Your task to perform on an android device: Empty the shopping cart on target.com. Search for "macbook air" on target.com, select the first entry, add it to the cart, then select checkout. Image 0: 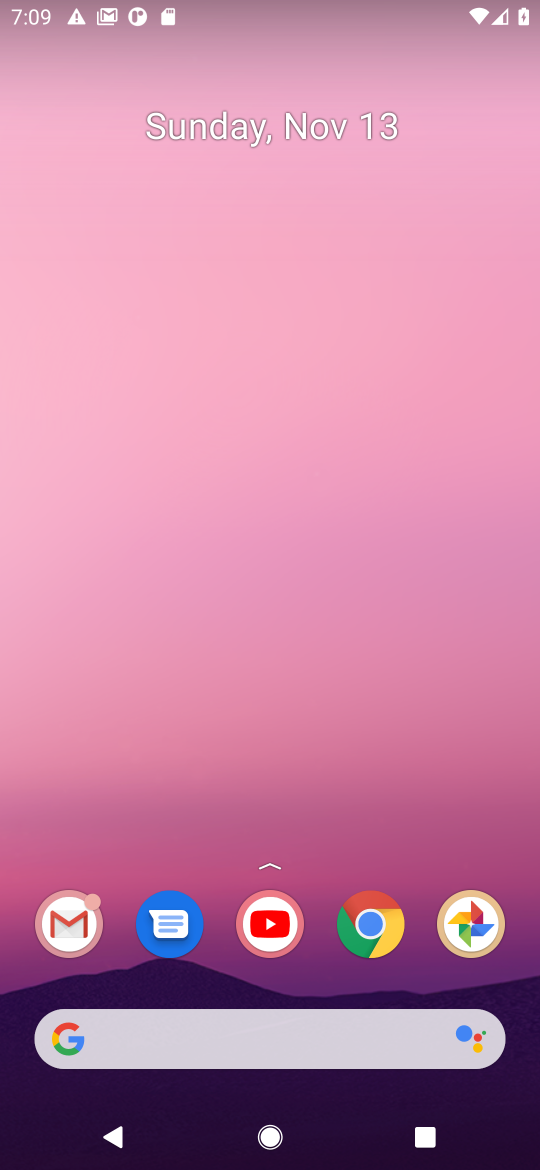
Step 0: click (372, 926)
Your task to perform on an android device: Empty the shopping cart on target.com. Search for "macbook air" on target.com, select the first entry, add it to the cart, then select checkout. Image 1: 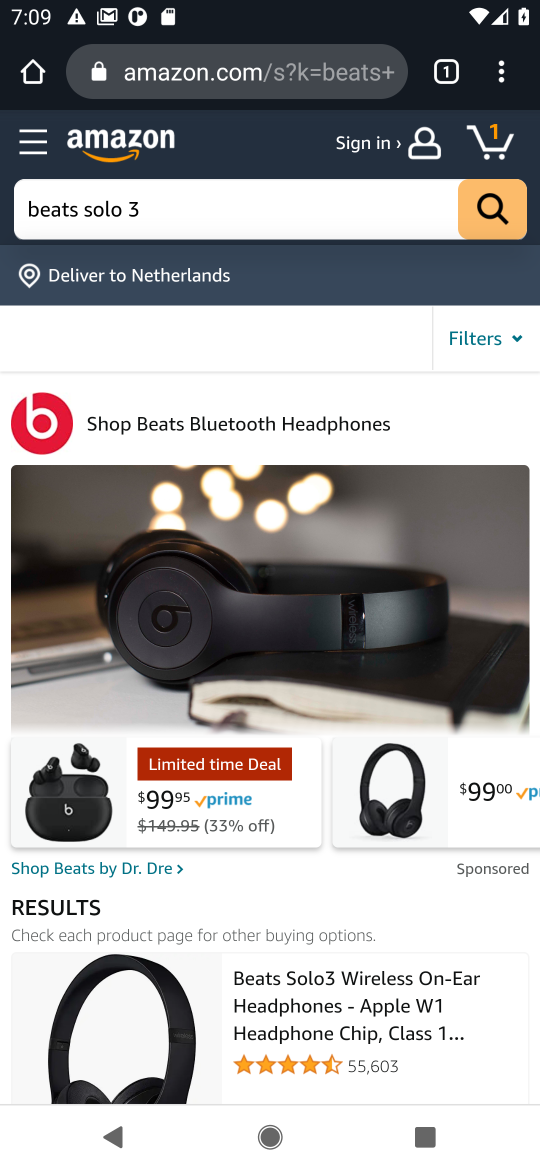
Step 1: click (201, 84)
Your task to perform on an android device: Empty the shopping cart on target.com. Search for "macbook air" on target.com, select the first entry, add it to the cart, then select checkout. Image 2: 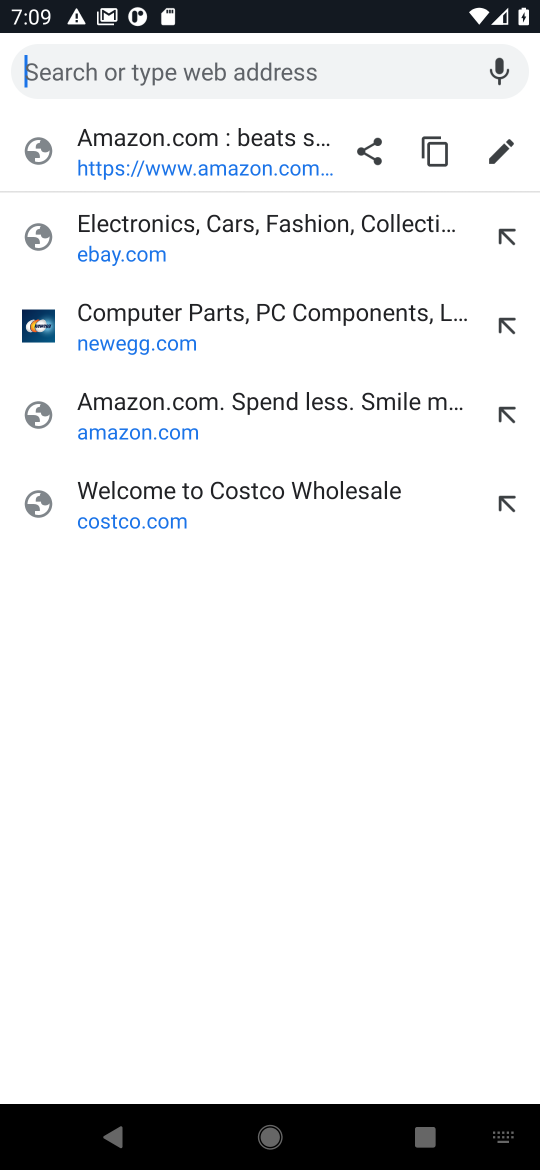
Step 2: type "target.com"
Your task to perform on an android device: Empty the shopping cart on target.com. Search for "macbook air" on target.com, select the first entry, add it to the cart, then select checkout. Image 3: 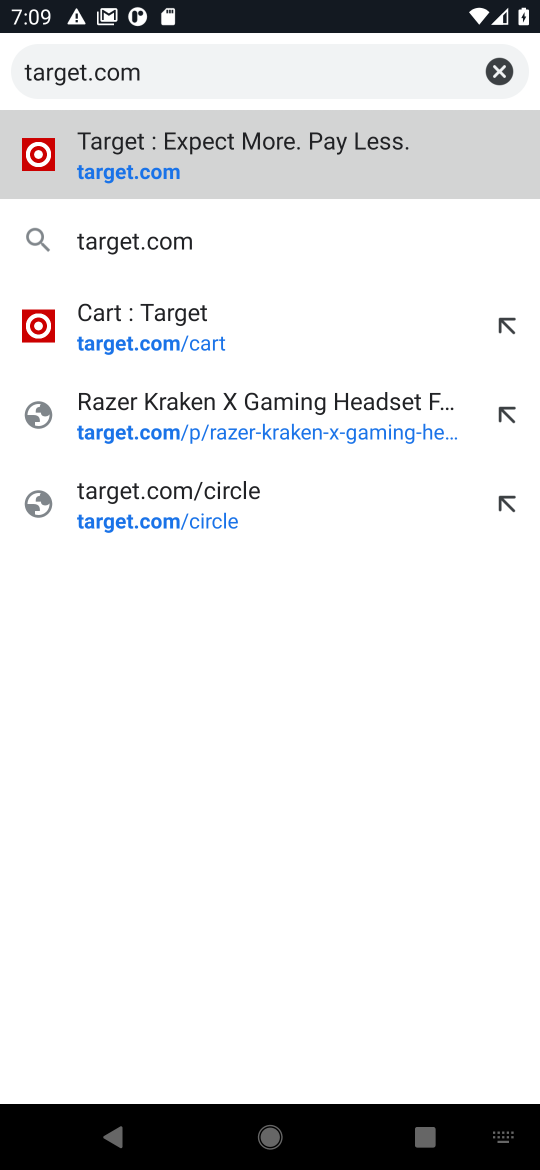
Step 3: click (151, 188)
Your task to perform on an android device: Empty the shopping cart on target.com. Search for "macbook air" on target.com, select the first entry, add it to the cart, then select checkout. Image 4: 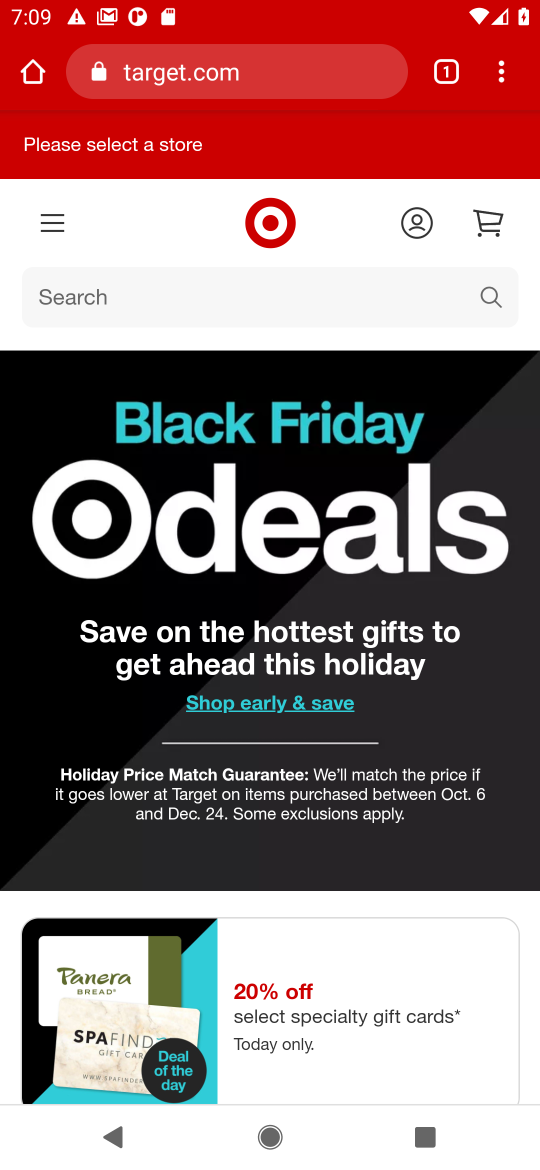
Step 4: click (495, 224)
Your task to perform on an android device: Empty the shopping cart on target.com. Search for "macbook air" on target.com, select the first entry, add it to the cart, then select checkout. Image 5: 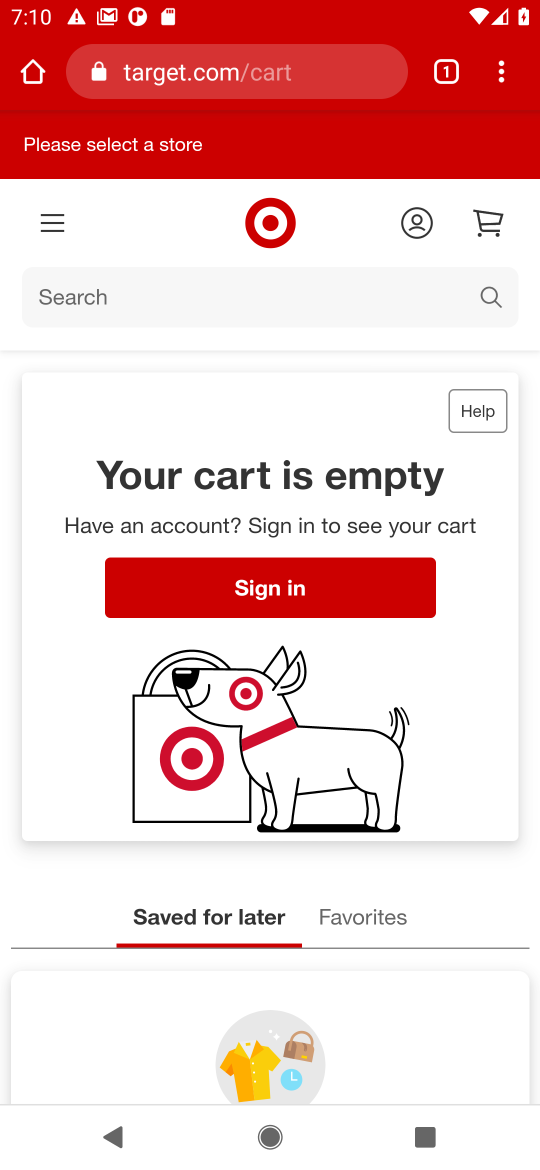
Step 5: click (484, 294)
Your task to perform on an android device: Empty the shopping cart on target.com. Search for "macbook air" on target.com, select the first entry, add it to the cart, then select checkout. Image 6: 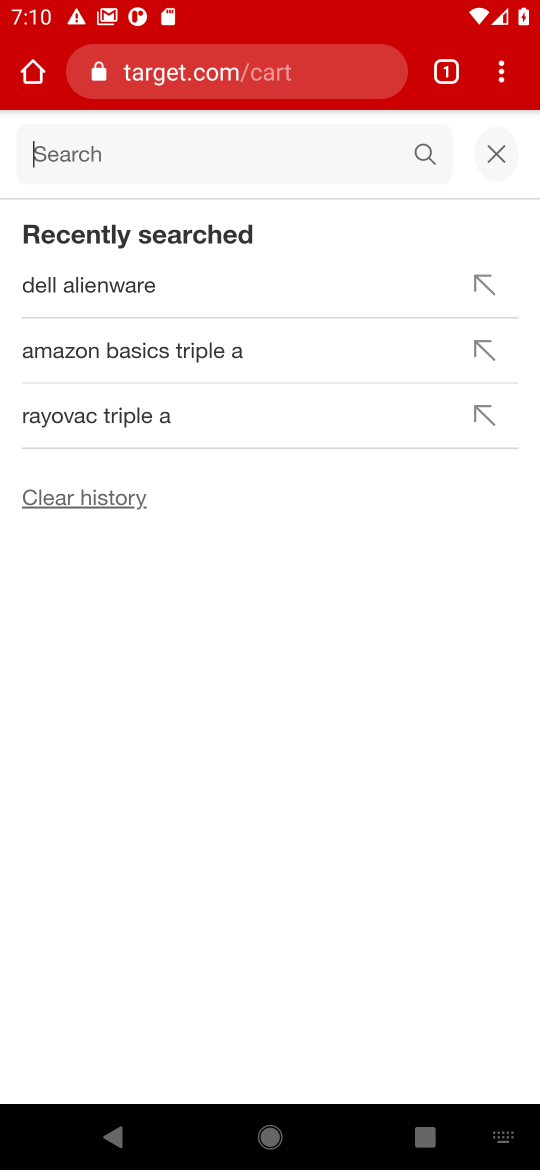
Step 6: type "macbook air"
Your task to perform on an android device: Empty the shopping cart on target.com. Search for "macbook air" on target.com, select the first entry, add it to the cart, then select checkout. Image 7: 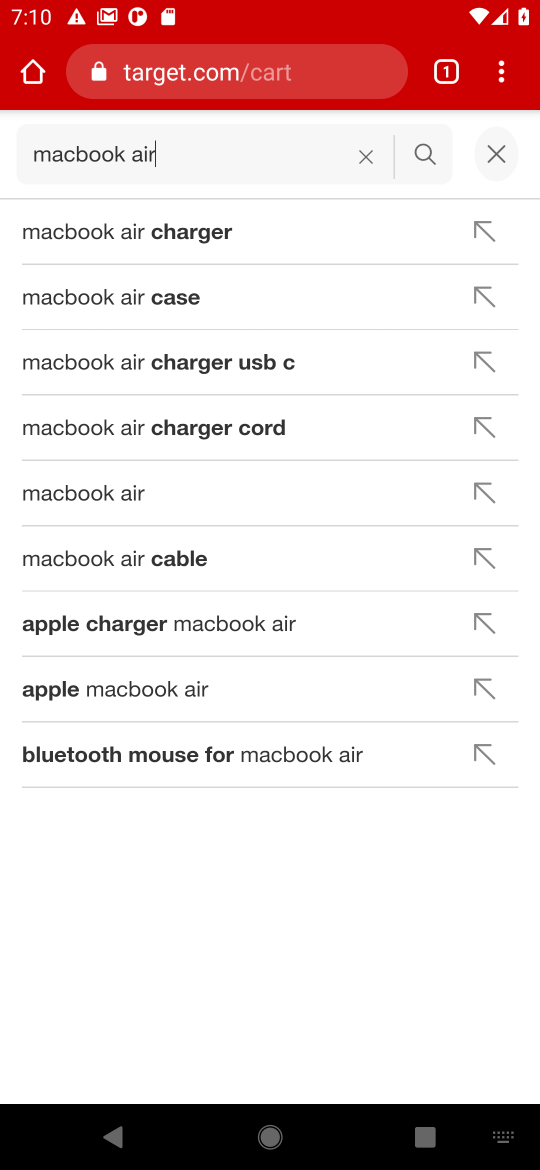
Step 7: click (52, 503)
Your task to perform on an android device: Empty the shopping cart on target.com. Search for "macbook air" on target.com, select the first entry, add it to the cart, then select checkout. Image 8: 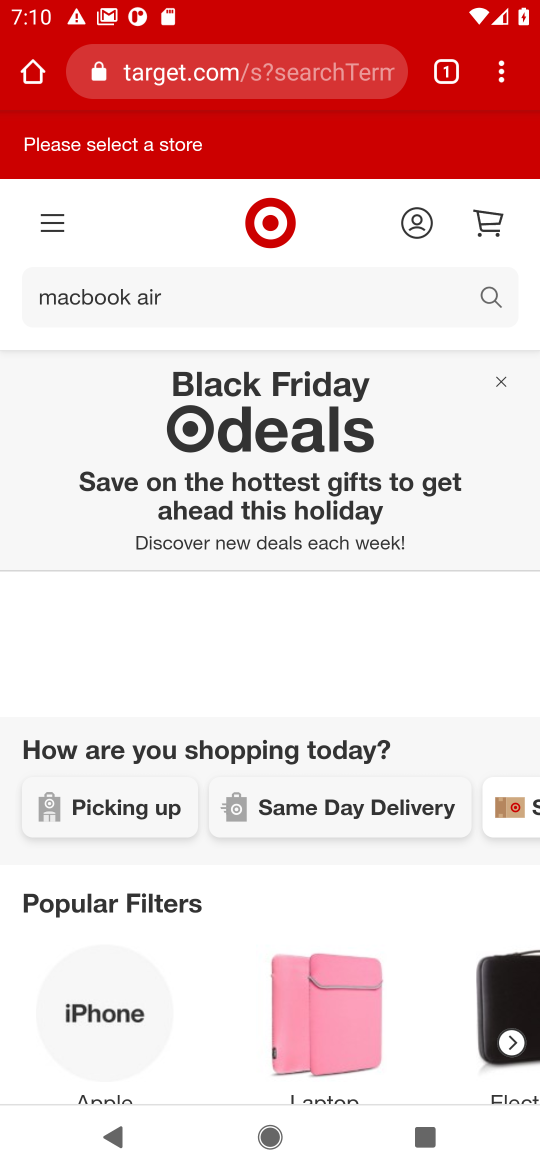
Step 8: drag from (323, 734) to (348, 298)
Your task to perform on an android device: Empty the shopping cart on target.com. Search for "macbook air" on target.com, select the first entry, add it to the cart, then select checkout. Image 9: 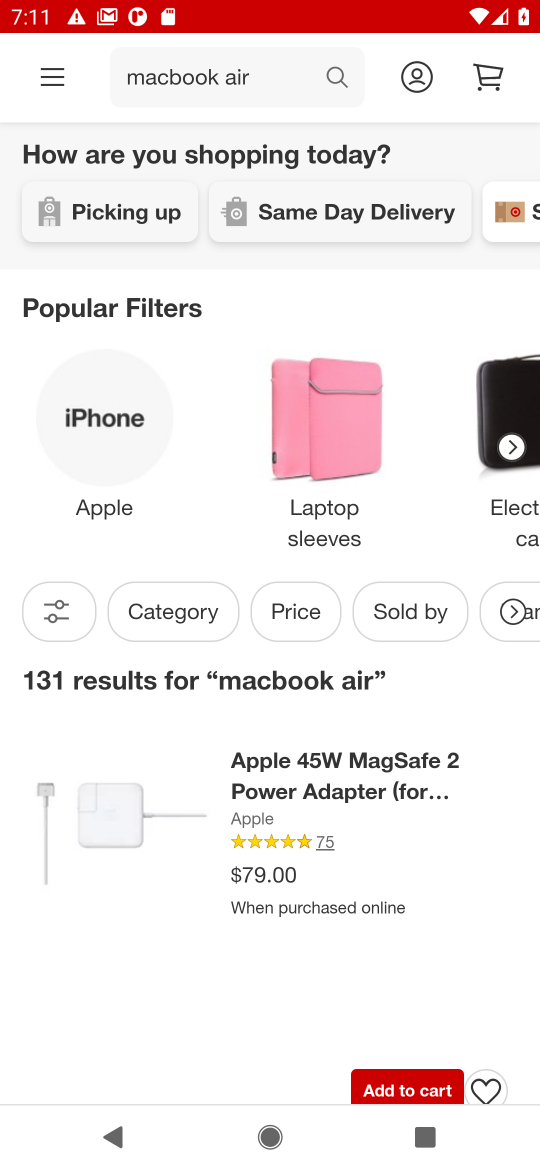
Step 9: drag from (173, 850) to (214, 530)
Your task to perform on an android device: Empty the shopping cart on target.com. Search for "macbook air" on target.com, select the first entry, add it to the cart, then select checkout. Image 10: 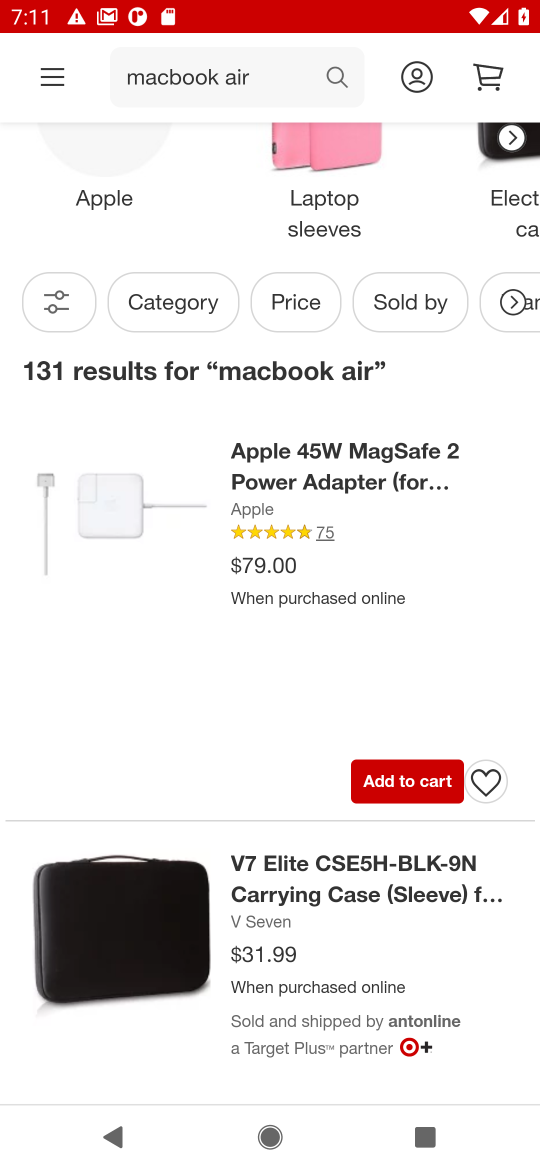
Step 10: click (120, 567)
Your task to perform on an android device: Empty the shopping cart on target.com. Search for "macbook air" on target.com, select the first entry, add it to the cart, then select checkout. Image 11: 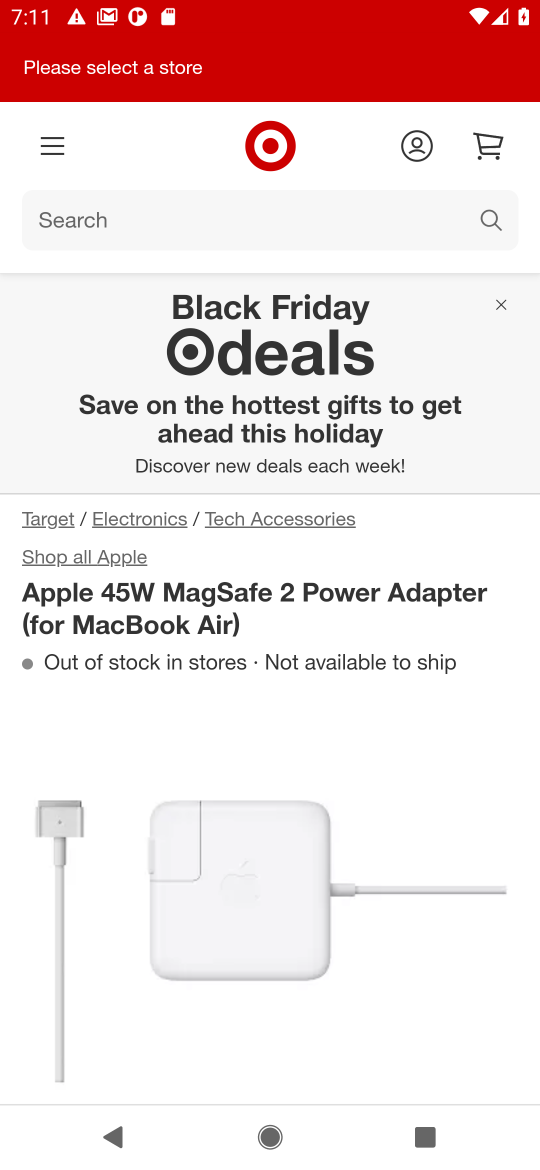
Step 11: drag from (162, 687) to (188, 365)
Your task to perform on an android device: Empty the shopping cart on target.com. Search for "macbook air" on target.com, select the first entry, add it to the cart, then select checkout. Image 12: 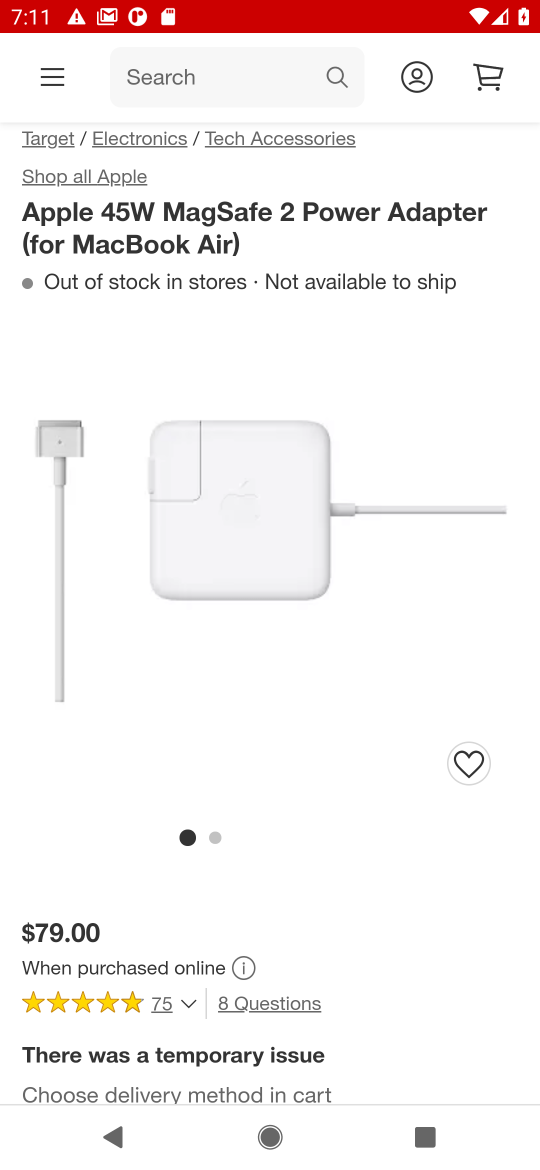
Step 12: drag from (204, 663) to (198, 391)
Your task to perform on an android device: Empty the shopping cart on target.com. Search for "macbook air" on target.com, select the first entry, add it to the cart, then select checkout. Image 13: 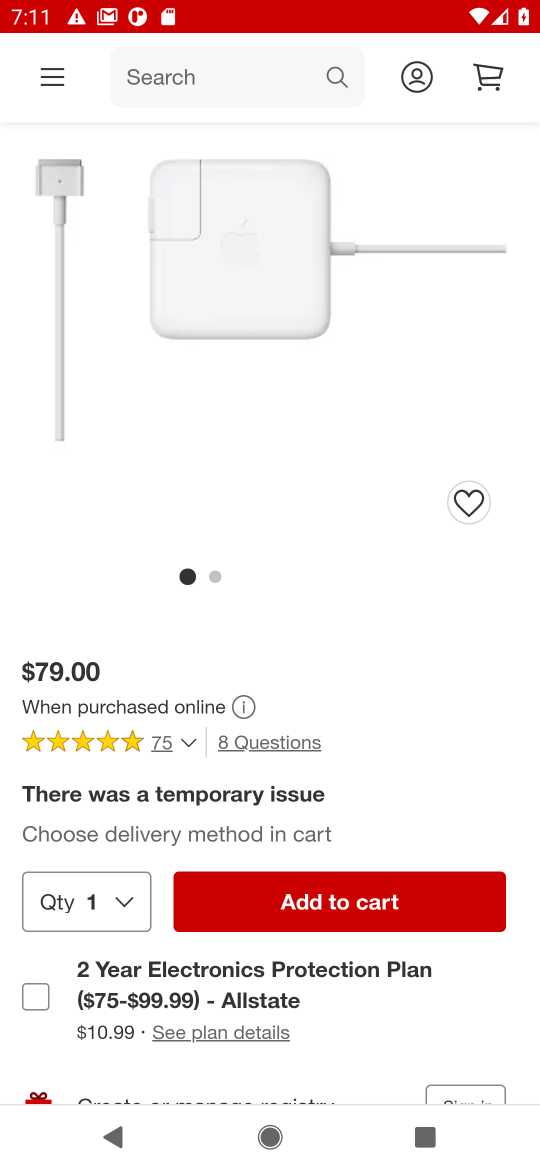
Step 13: click (304, 895)
Your task to perform on an android device: Empty the shopping cart on target.com. Search for "macbook air" on target.com, select the first entry, add it to the cart, then select checkout. Image 14: 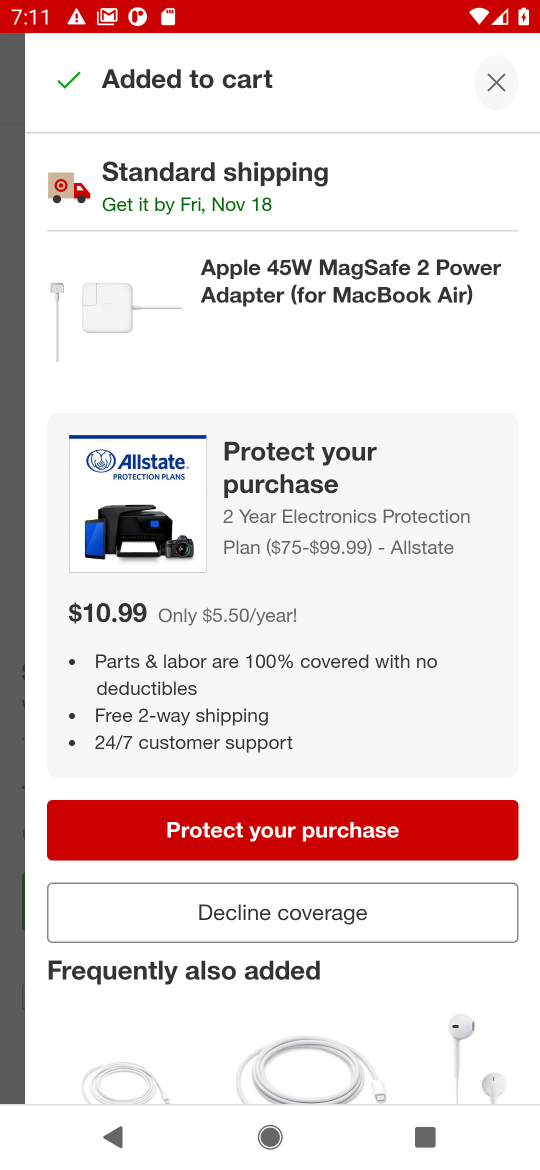
Step 14: click (490, 71)
Your task to perform on an android device: Empty the shopping cart on target.com. Search for "macbook air" on target.com, select the first entry, add it to the cart, then select checkout. Image 15: 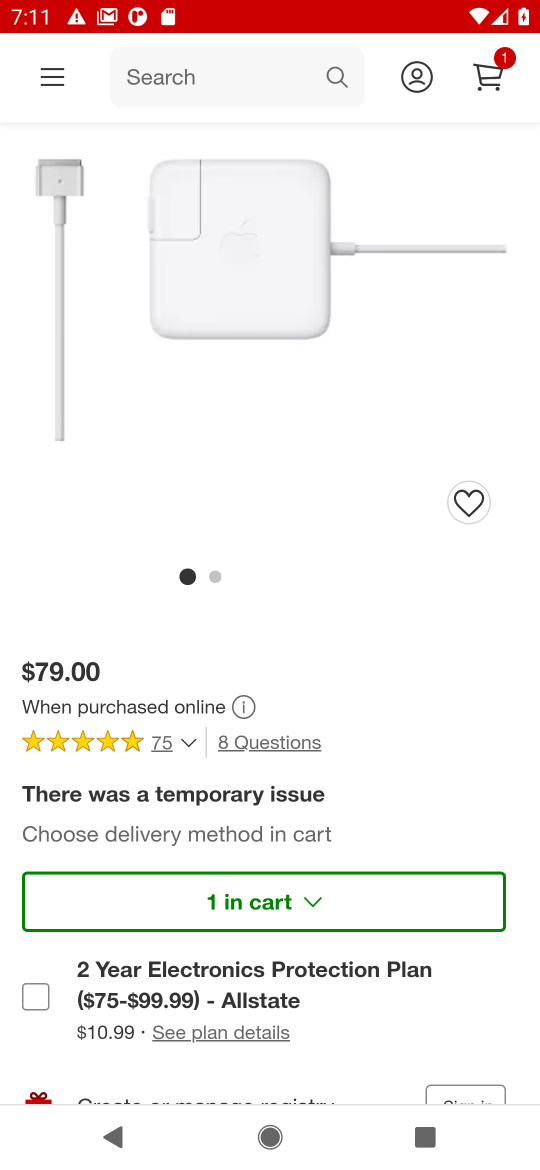
Step 15: drag from (434, 761) to (370, 384)
Your task to perform on an android device: Empty the shopping cart on target.com. Search for "macbook air" on target.com, select the first entry, add it to the cart, then select checkout. Image 16: 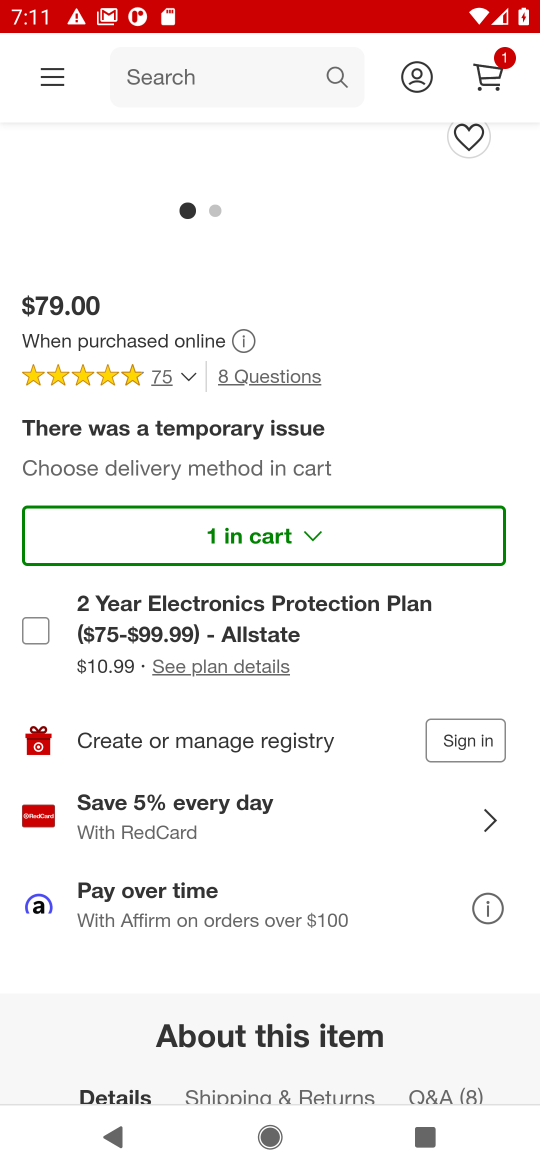
Step 16: drag from (266, 852) to (351, 1153)
Your task to perform on an android device: Empty the shopping cart on target.com. Search for "macbook air" on target.com, select the first entry, add it to the cart, then select checkout. Image 17: 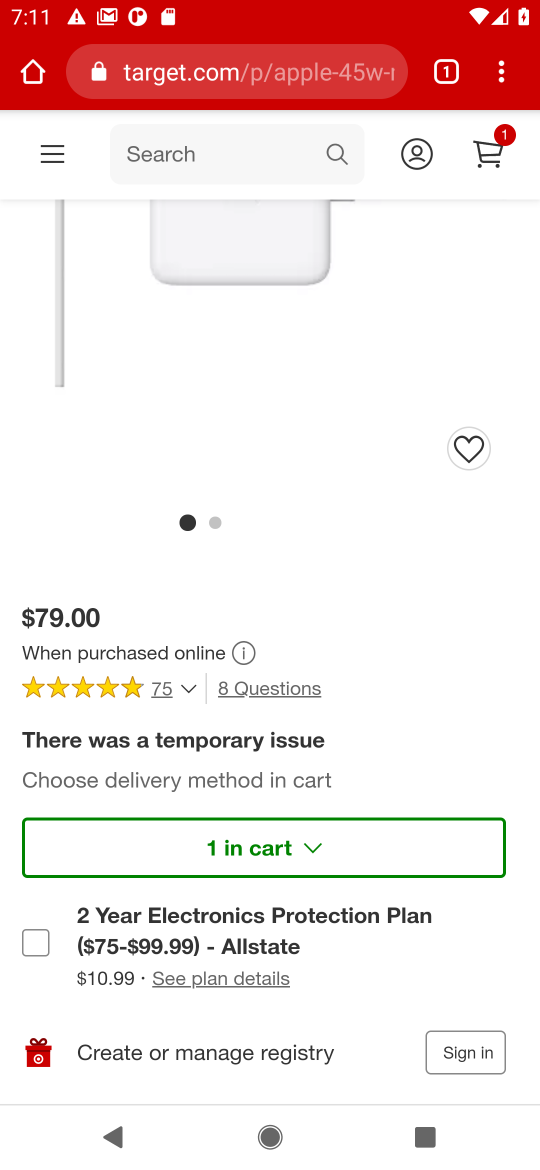
Step 17: click (487, 154)
Your task to perform on an android device: Empty the shopping cart on target.com. Search for "macbook air" on target.com, select the first entry, add it to the cart, then select checkout. Image 18: 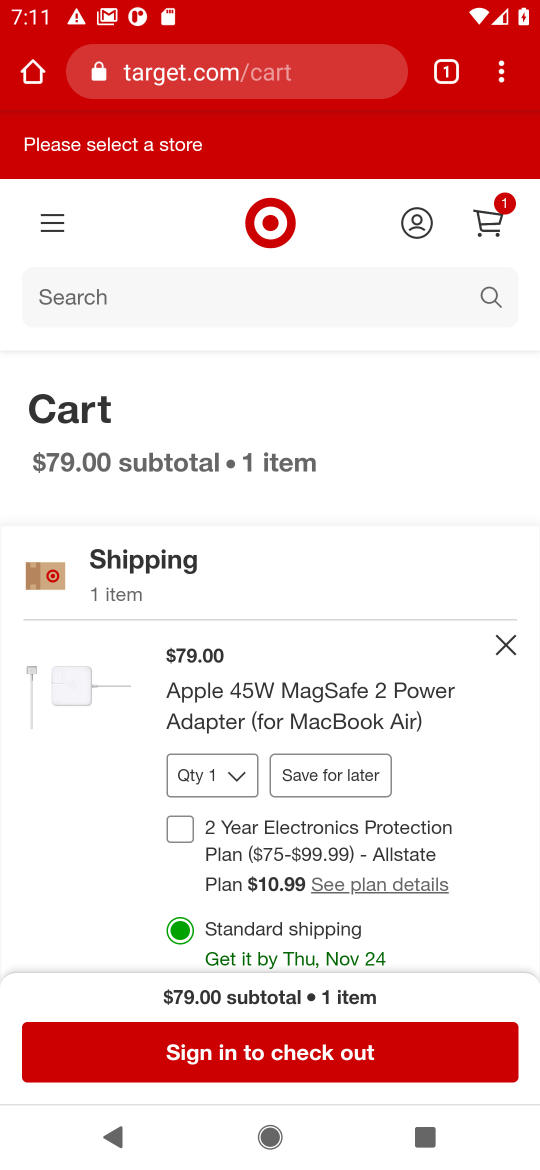
Step 18: click (296, 1043)
Your task to perform on an android device: Empty the shopping cart on target.com. Search for "macbook air" on target.com, select the first entry, add it to the cart, then select checkout. Image 19: 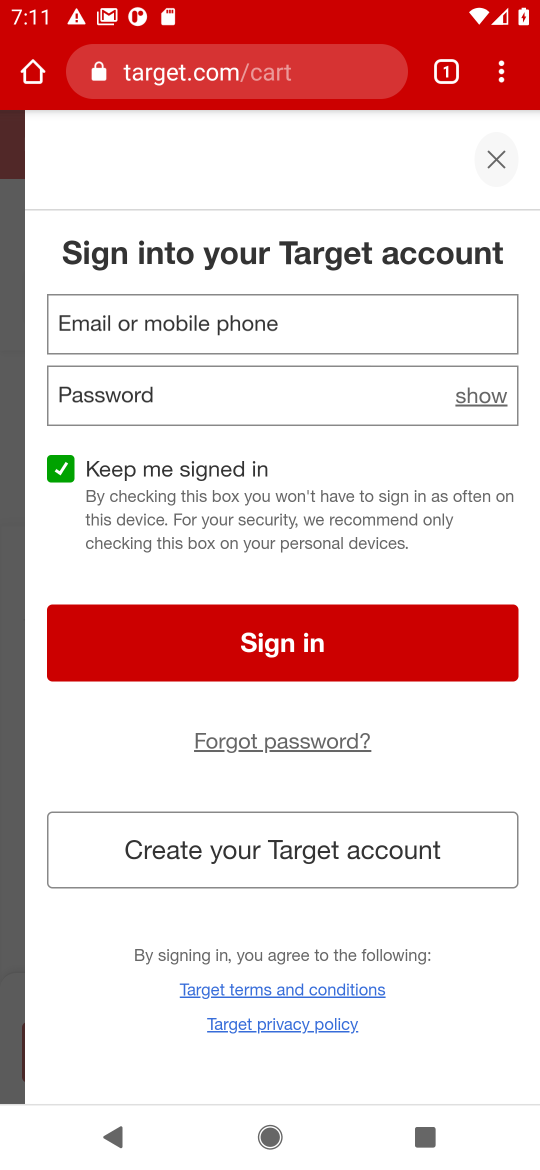
Step 19: task complete